Your task to perform on an android device: Search for Italian restaurants on Maps Image 0: 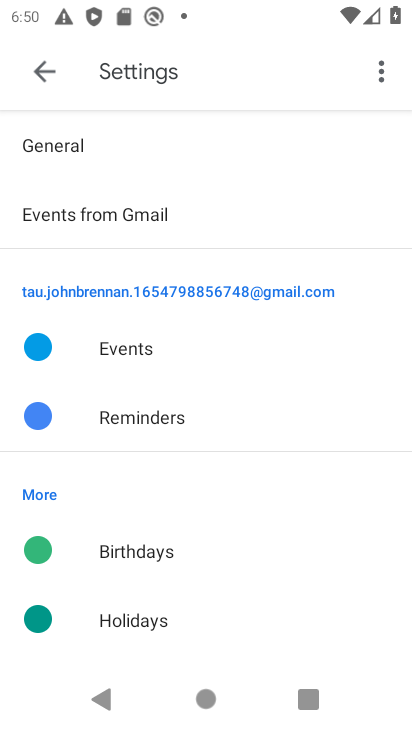
Step 0: press back button
Your task to perform on an android device: Search for Italian restaurants on Maps Image 1: 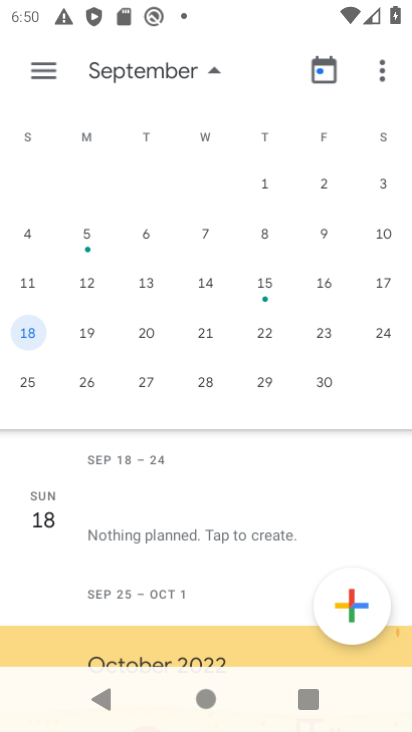
Step 1: press home button
Your task to perform on an android device: Search for Italian restaurants on Maps Image 2: 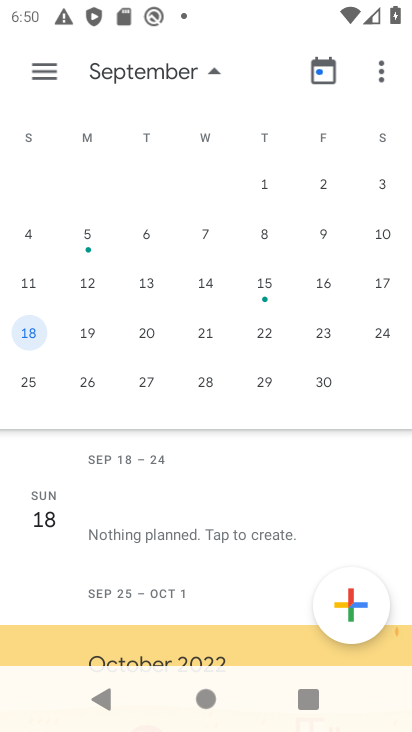
Step 2: drag from (361, 694) to (253, 75)
Your task to perform on an android device: Search for Italian restaurants on Maps Image 3: 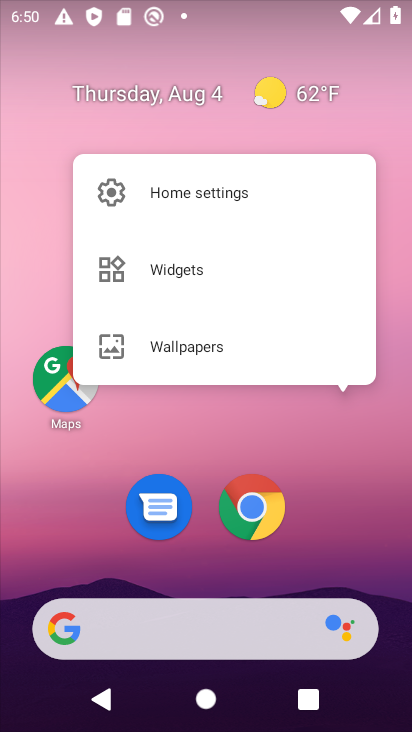
Step 3: click (364, 575)
Your task to perform on an android device: Search for Italian restaurants on Maps Image 4: 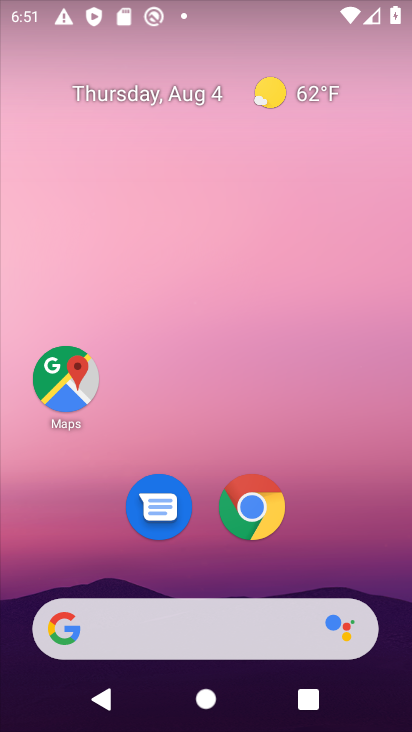
Step 4: drag from (391, 641) to (241, 4)
Your task to perform on an android device: Search for Italian restaurants on Maps Image 5: 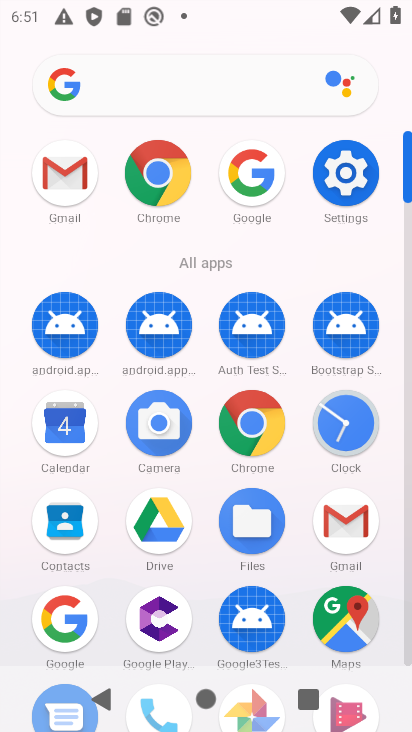
Step 5: click (355, 611)
Your task to perform on an android device: Search for Italian restaurants on Maps Image 6: 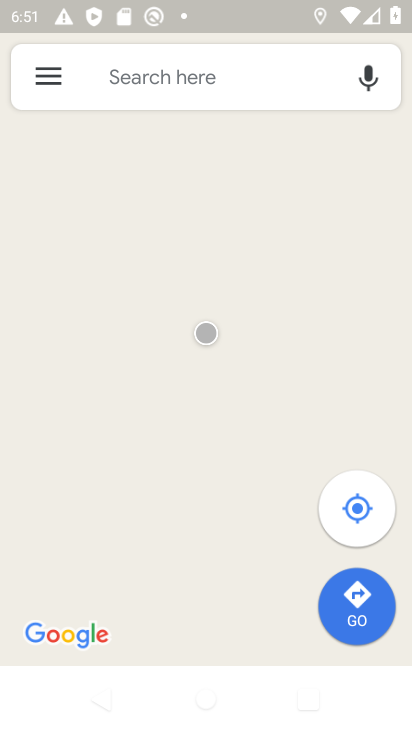
Step 6: click (145, 79)
Your task to perform on an android device: Search for Italian restaurants on Maps Image 7: 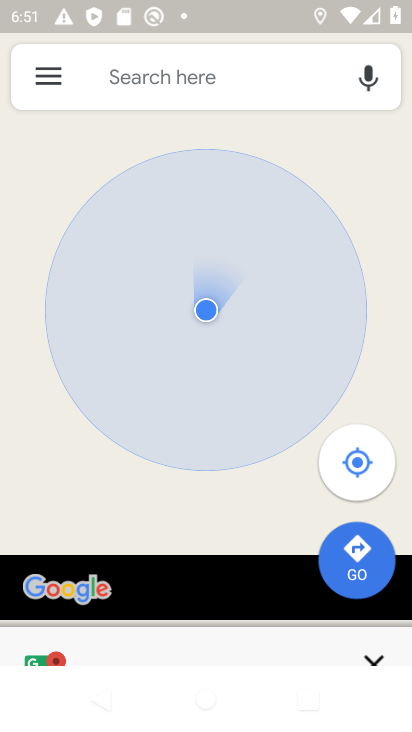
Step 7: click (133, 75)
Your task to perform on an android device: Search for Italian restaurants on Maps Image 8: 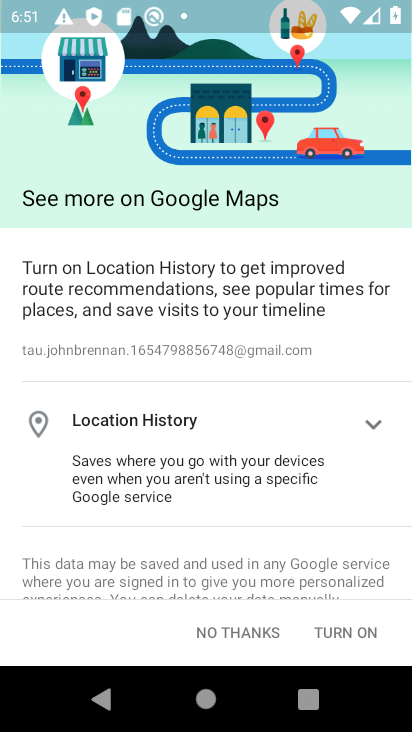
Step 8: click (349, 639)
Your task to perform on an android device: Search for Italian restaurants on Maps Image 9: 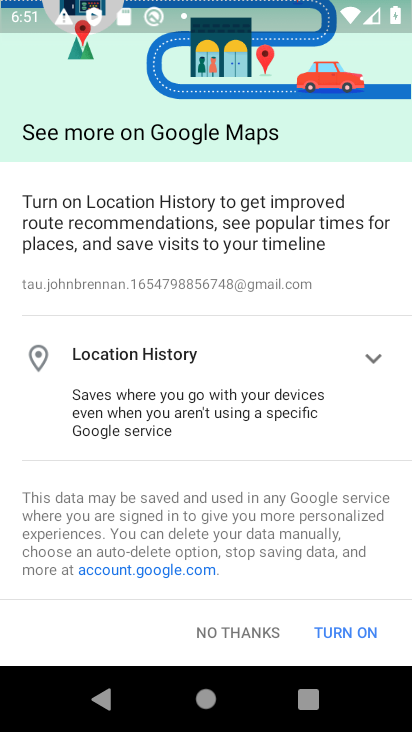
Step 9: click (349, 639)
Your task to perform on an android device: Search for Italian restaurants on Maps Image 10: 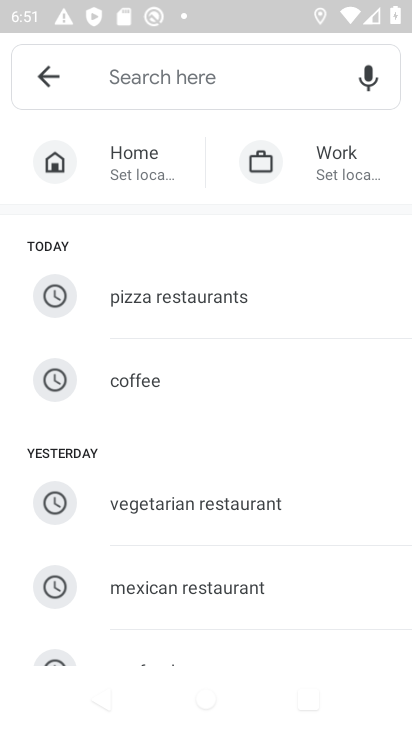
Step 10: drag from (181, 623) to (213, 132)
Your task to perform on an android device: Search for Italian restaurants on Maps Image 11: 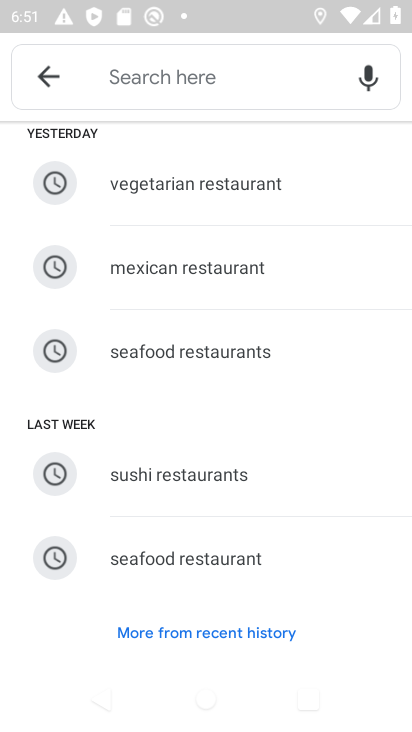
Step 11: click (143, 72)
Your task to perform on an android device: Search for Italian restaurants on Maps Image 12: 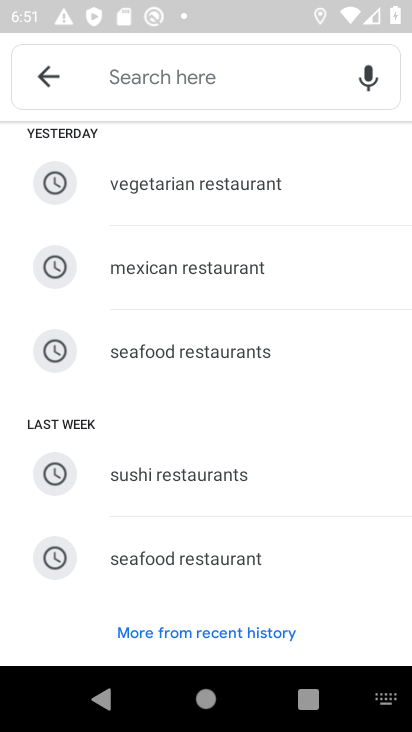
Step 12: type " Italian restaurants"
Your task to perform on an android device: Search for Italian restaurants on Maps Image 13: 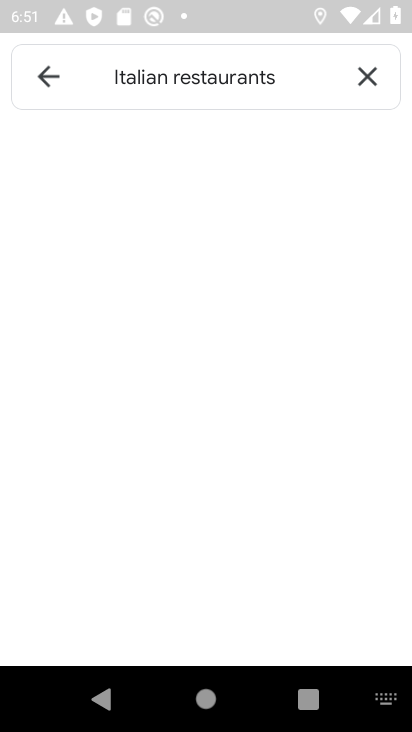
Step 13: task complete